Your task to perform on an android device: toggle notifications settings in the gmail app Image 0: 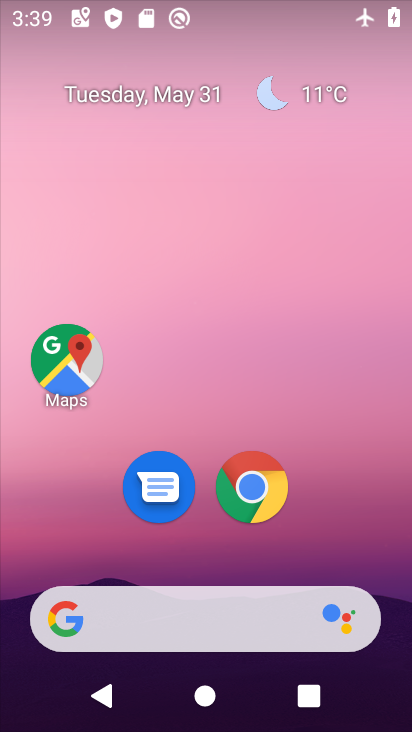
Step 0: drag from (337, 546) to (320, 62)
Your task to perform on an android device: toggle notifications settings in the gmail app Image 1: 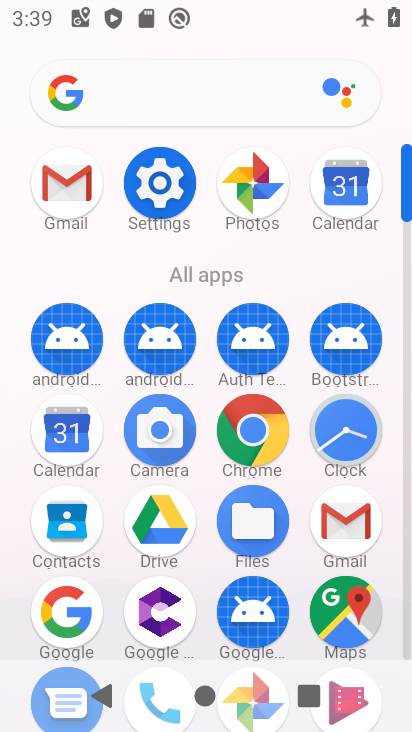
Step 1: click (66, 180)
Your task to perform on an android device: toggle notifications settings in the gmail app Image 2: 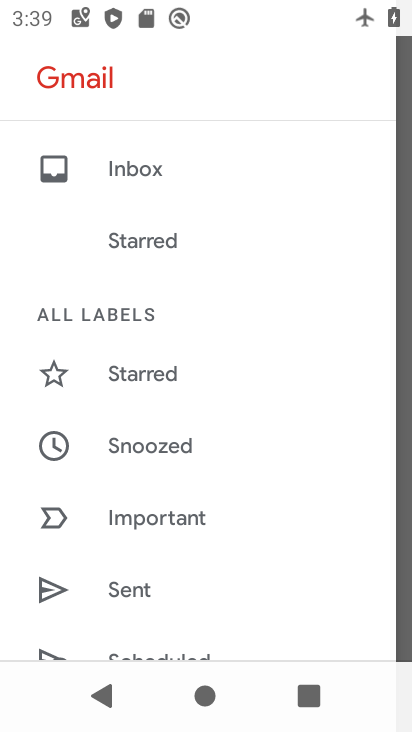
Step 2: drag from (169, 353) to (173, 196)
Your task to perform on an android device: toggle notifications settings in the gmail app Image 3: 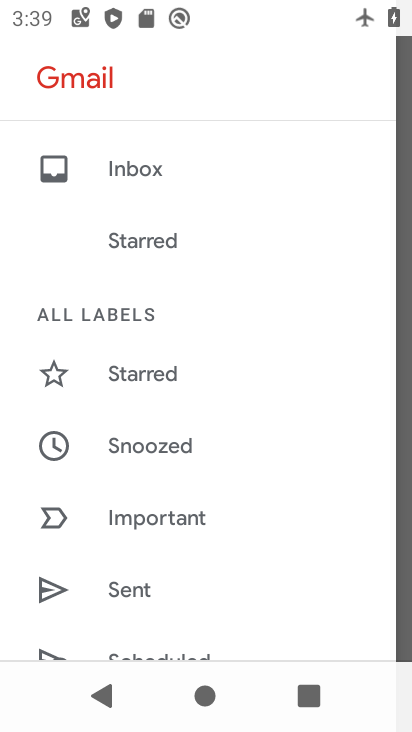
Step 3: drag from (151, 405) to (173, 235)
Your task to perform on an android device: toggle notifications settings in the gmail app Image 4: 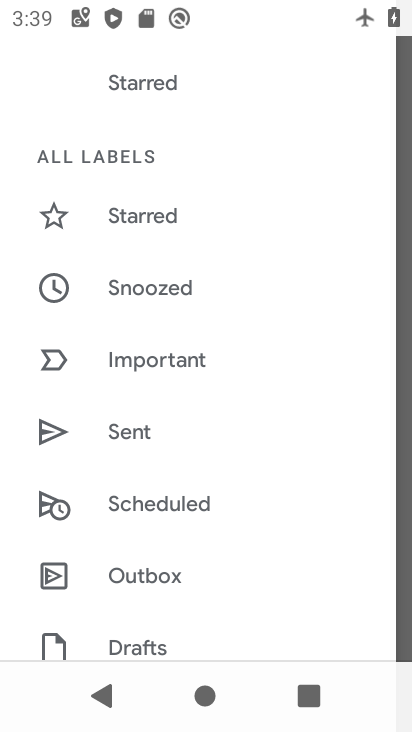
Step 4: drag from (138, 403) to (177, 270)
Your task to perform on an android device: toggle notifications settings in the gmail app Image 5: 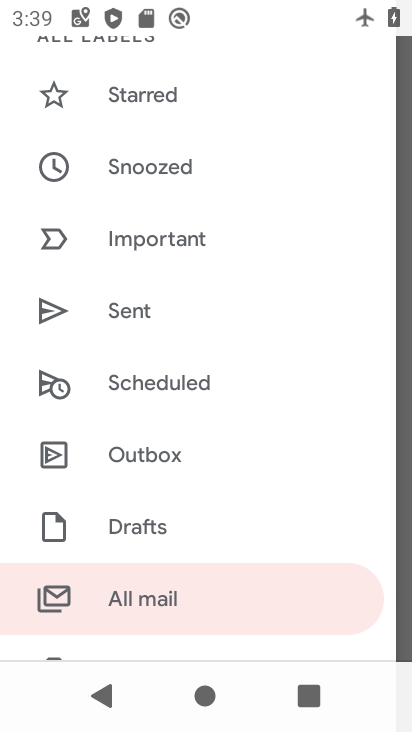
Step 5: drag from (116, 407) to (162, 242)
Your task to perform on an android device: toggle notifications settings in the gmail app Image 6: 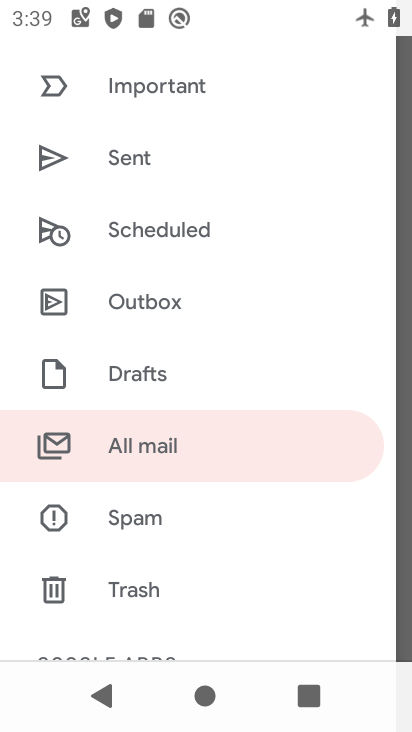
Step 6: drag from (151, 352) to (157, 197)
Your task to perform on an android device: toggle notifications settings in the gmail app Image 7: 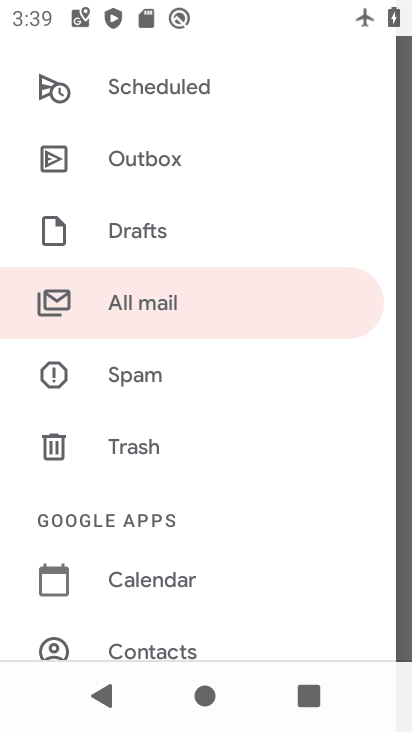
Step 7: drag from (139, 414) to (157, 258)
Your task to perform on an android device: toggle notifications settings in the gmail app Image 8: 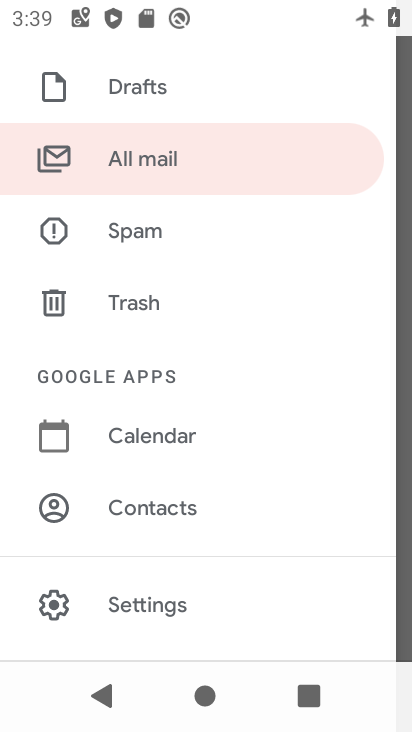
Step 8: drag from (153, 413) to (142, 290)
Your task to perform on an android device: toggle notifications settings in the gmail app Image 9: 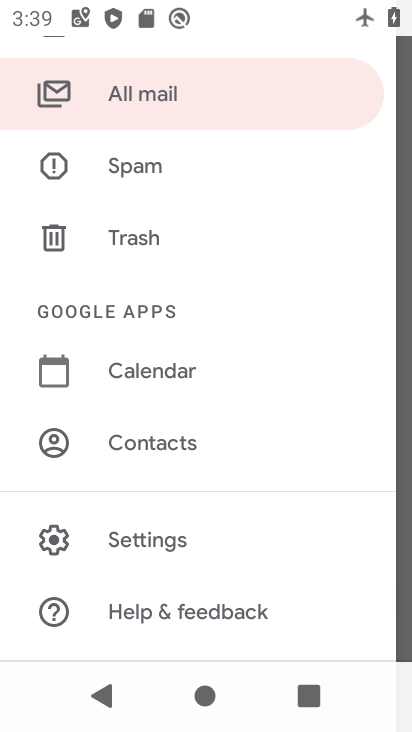
Step 9: click (160, 540)
Your task to perform on an android device: toggle notifications settings in the gmail app Image 10: 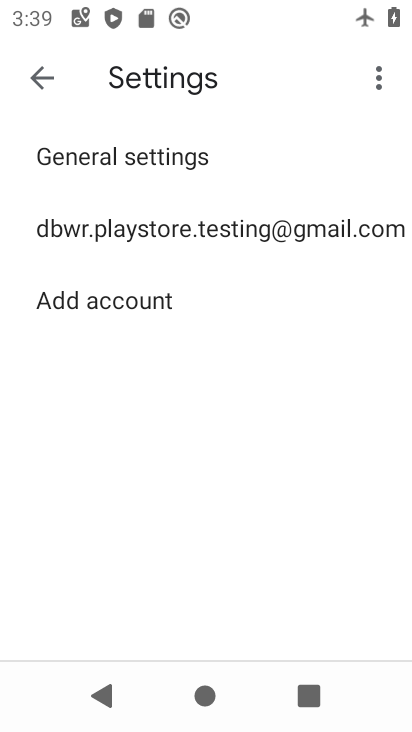
Step 10: click (129, 225)
Your task to perform on an android device: toggle notifications settings in the gmail app Image 11: 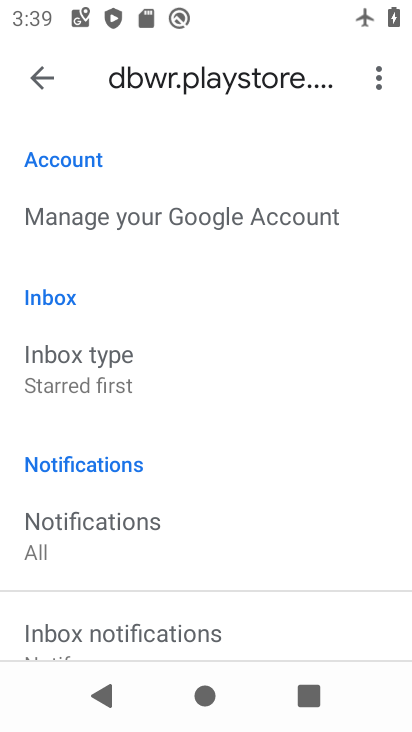
Step 11: drag from (105, 537) to (162, 422)
Your task to perform on an android device: toggle notifications settings in the gmail app Image 12: 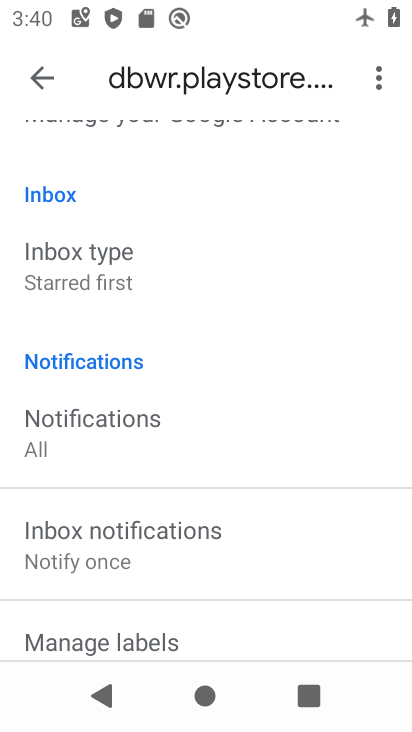
Step 12: drag from (148, 568) to (190, 464)
Your task to perform on an android device: toggle notifications settings in the gmail app Image 13: 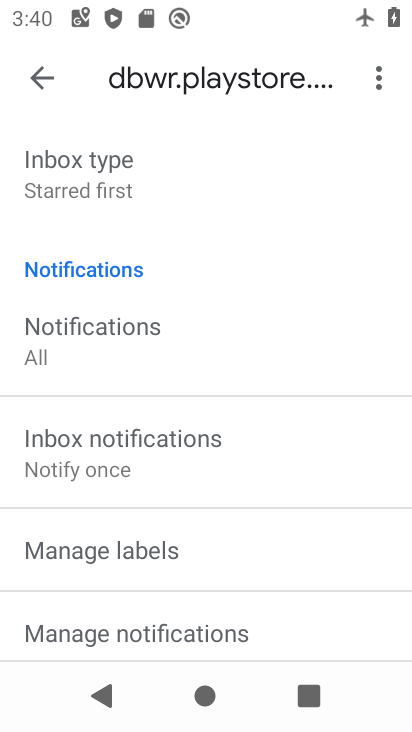
Step 13: drag from (162, 557) to (204, 479)
Your task to perform on an android device: toggle notifications settings in the gmail app Image 14: 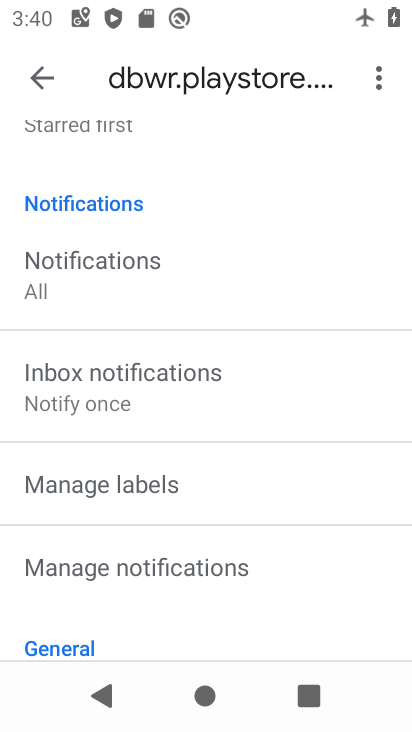
Step 14: click (187, 560)
Your task to perform on an android device: toggle notifications settings in the gmail app Image 15: 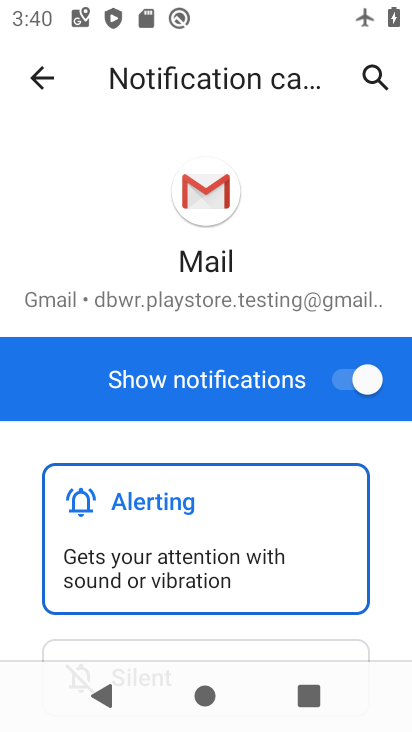
Step 15: click (339, 376)
Your task to perform on an android device: toggle notifications settings in the gmail app Image 16: 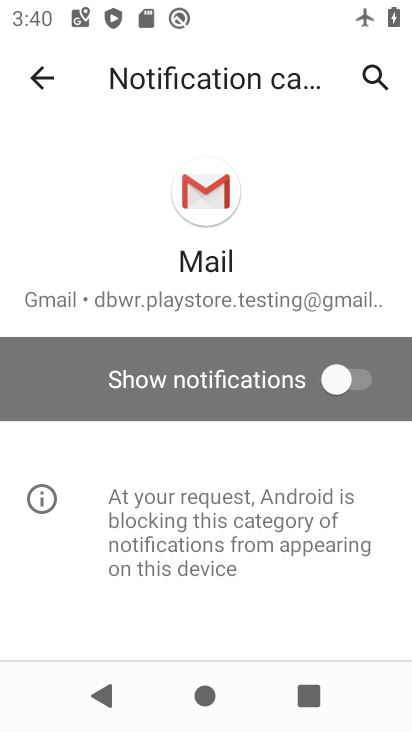
Step 16: task complete